Your task to perform on an android device: What's the time in New York? Image 0: 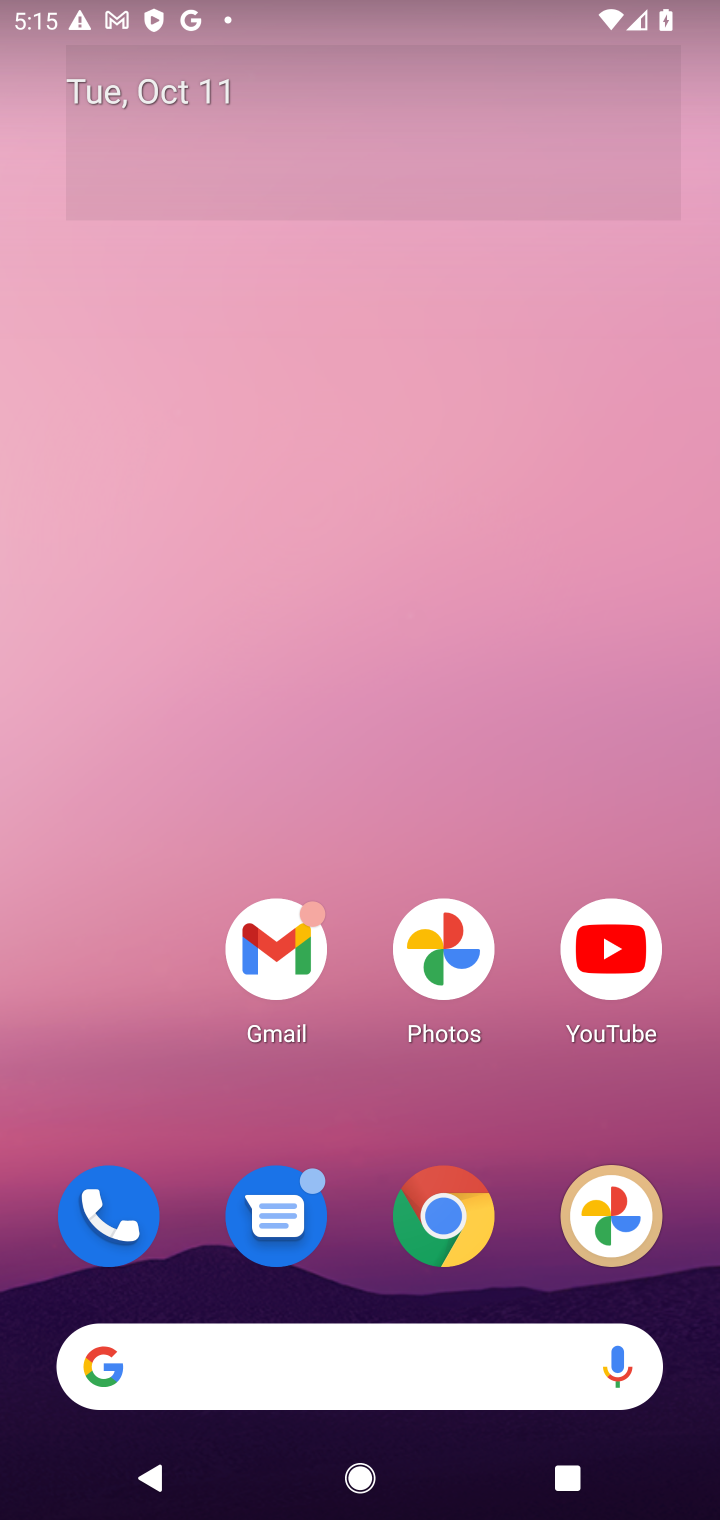
Step 0: click (422, 1243)
Your task to perform on an android device: What's the time in New York? Image 1: 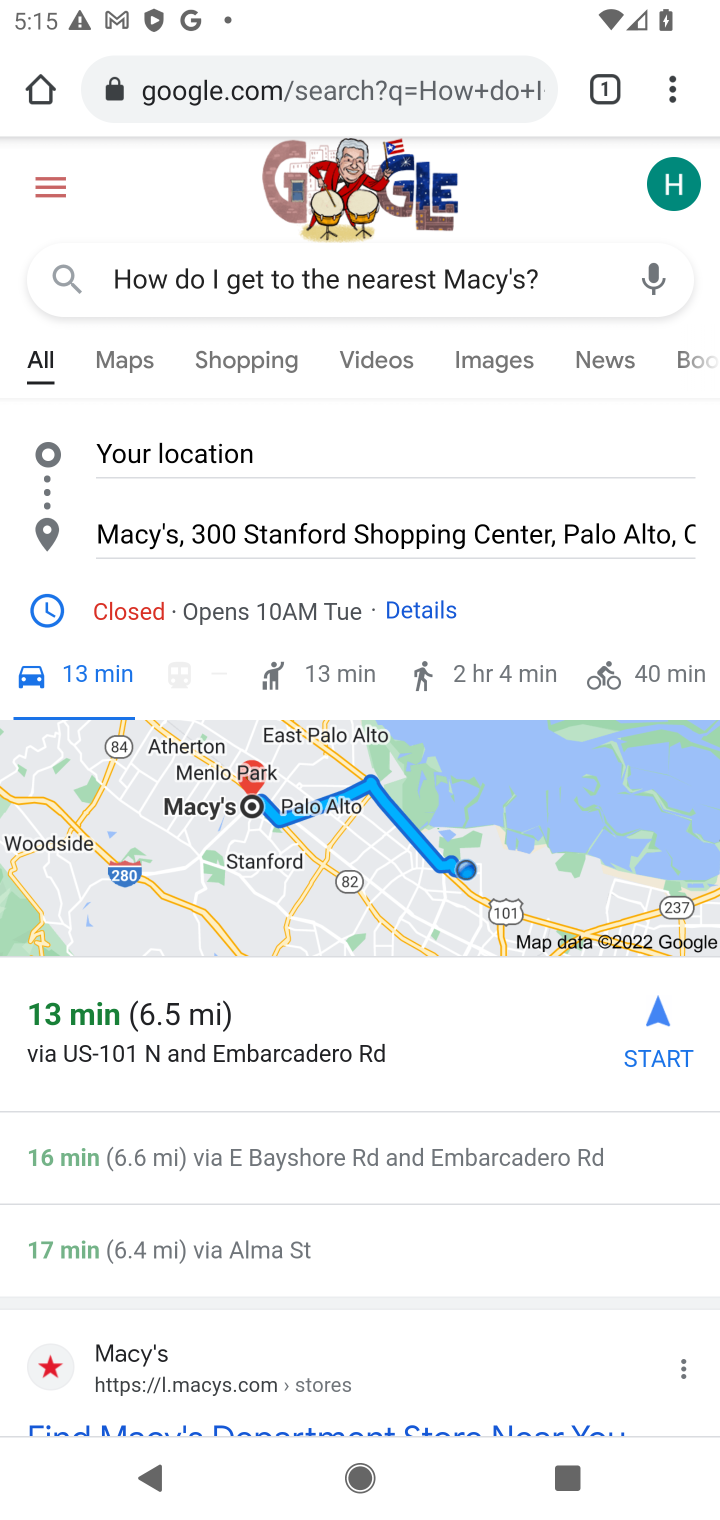
Step 1: click (585, 274)
Your task to perform on an android device: What's the time in New York? Image 2: 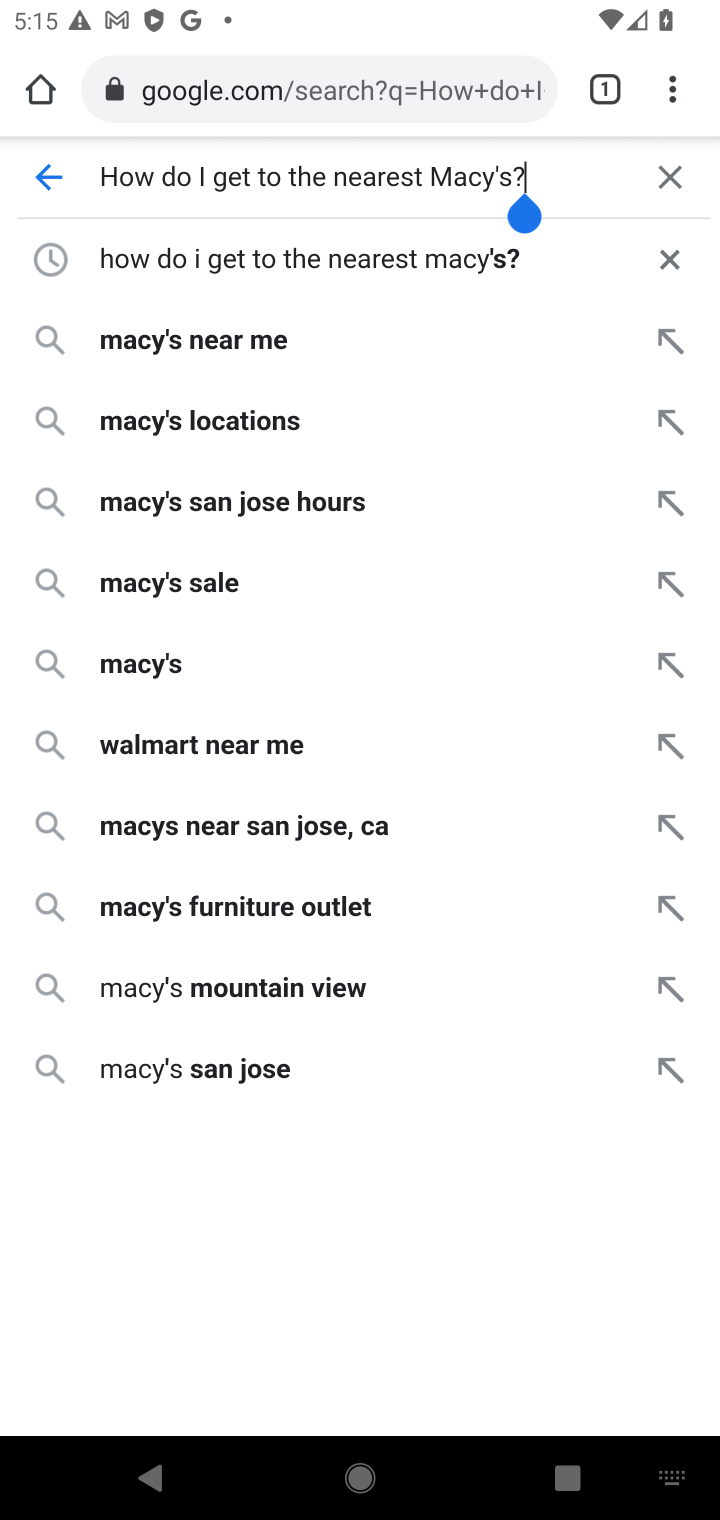
Step 2: click (669, 170)
Your task to perform on an android device: What's the time in New York? Image 3: 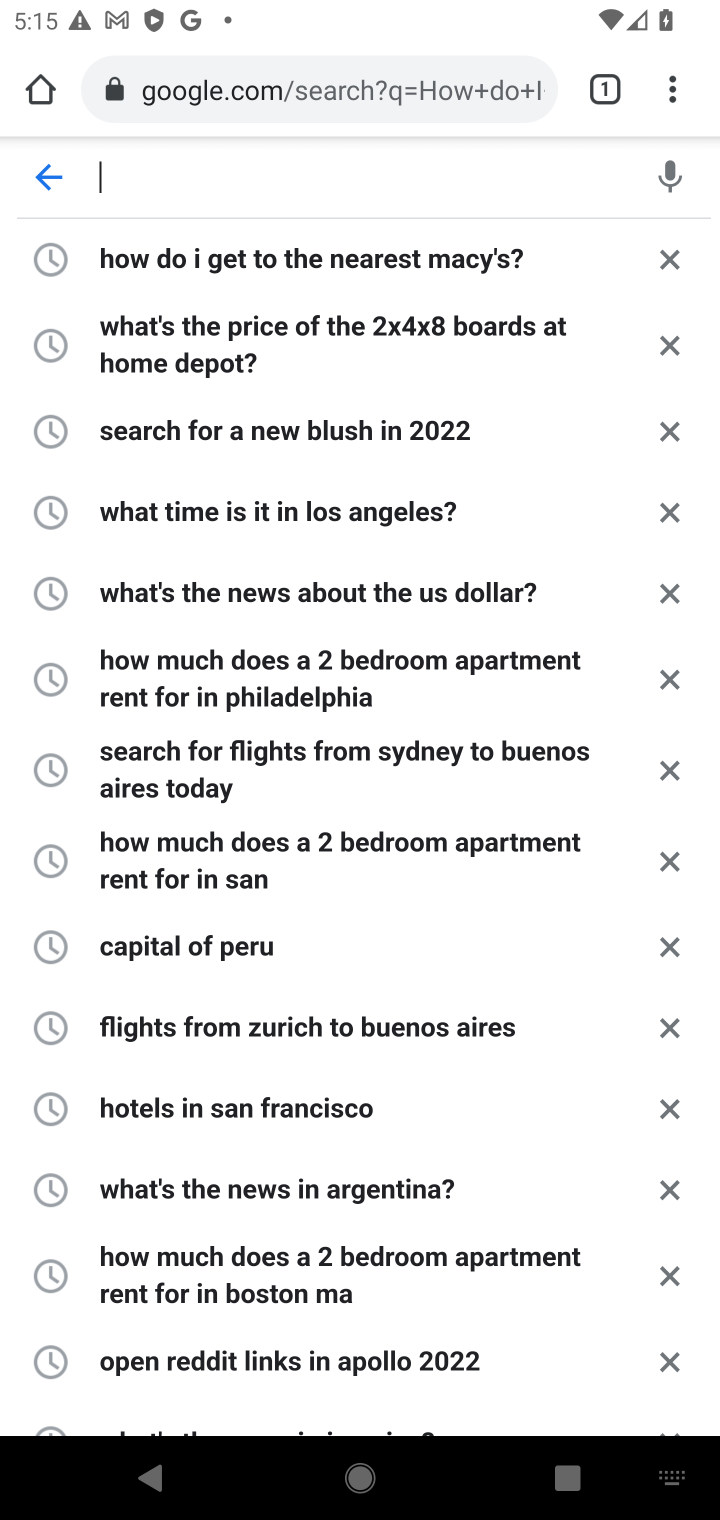
Step 3: type "What's the time in New York?"
Your task to perform on an android device: What's the time in New York? Image 4: 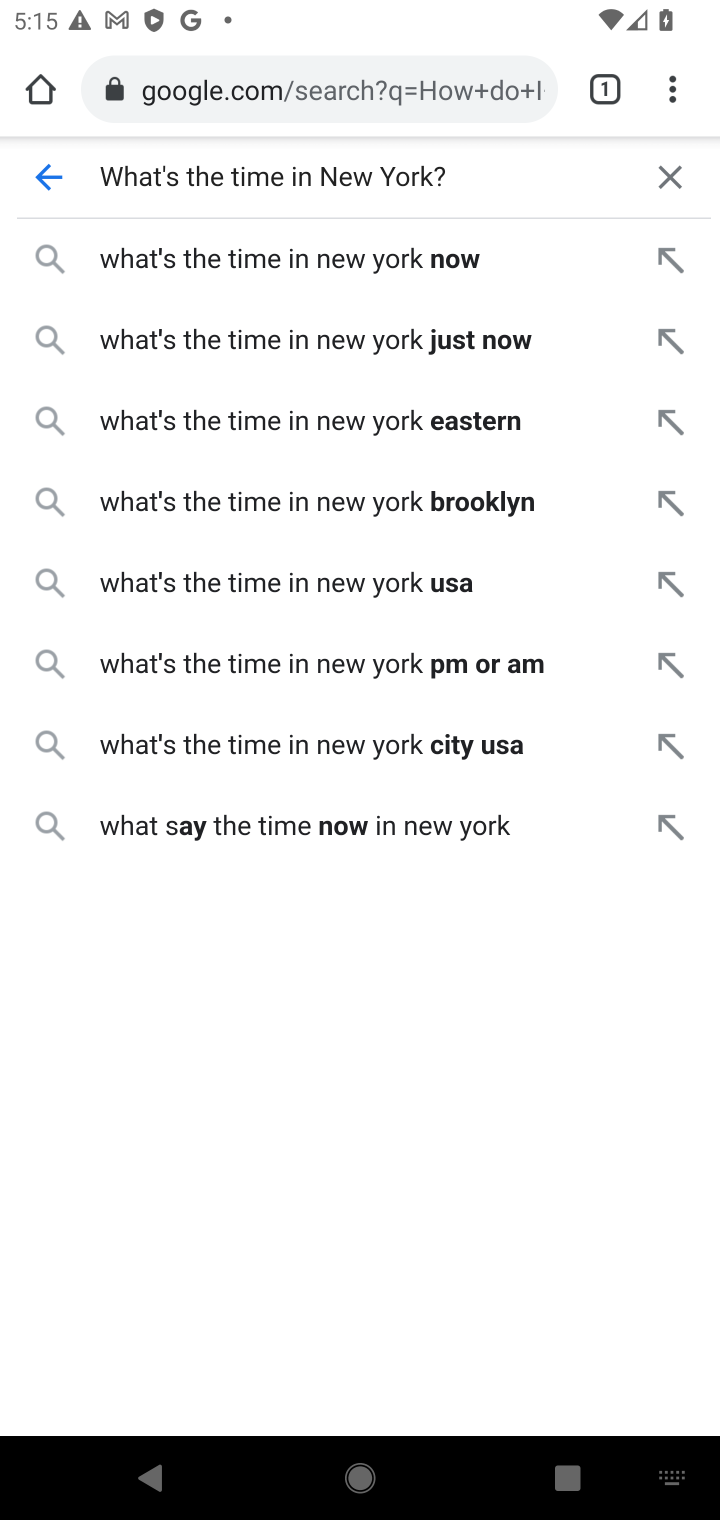
Step 4: press enter
Your task to perform on an android device: What's the time in New York? Image 5: 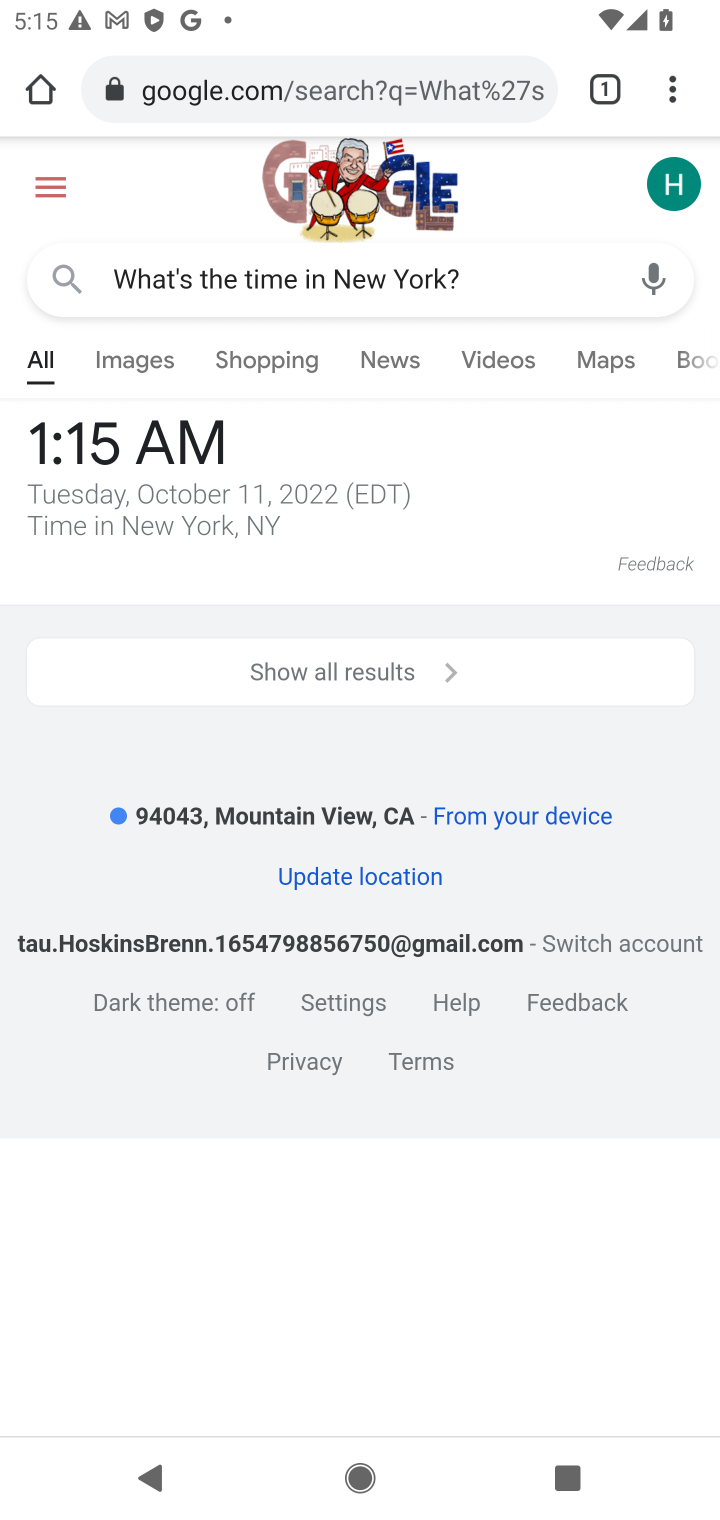
Step 5: task complete